Your task to perform on an android device: Do I have any events tomorrow? Image 0: 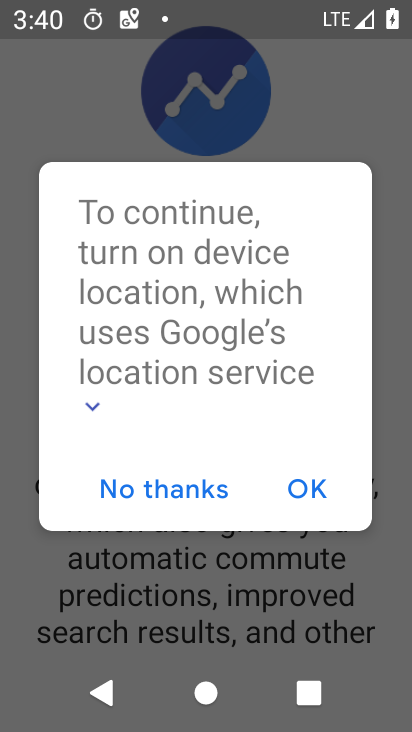
Step 0: press home button
Your task to perform on an android device: Do I have any events tomorrow? Image 1: 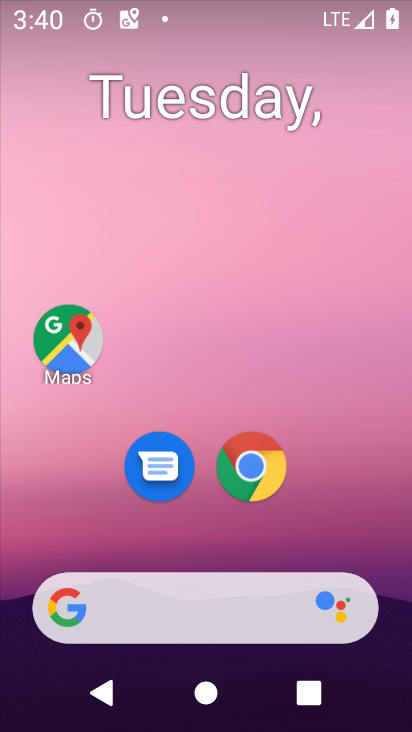
Step 1: drag from (384, 535) to (357, 146)
Your task to perform on an android device: Do I have any events tomorrow? Image 2: 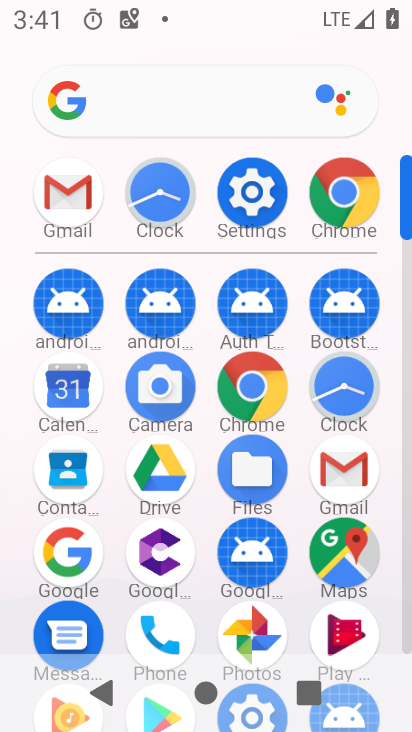
Step 2: click (89, 395)
Your task to perform on an android device: Do I have any events tomorrow? Image 3: 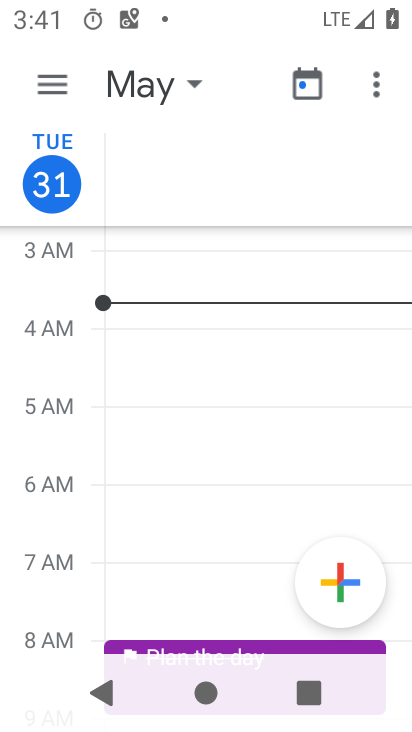
Step 3: click (62, 87)
Your task to perform on an android device: Do I have any events tomorrow? Image 4: 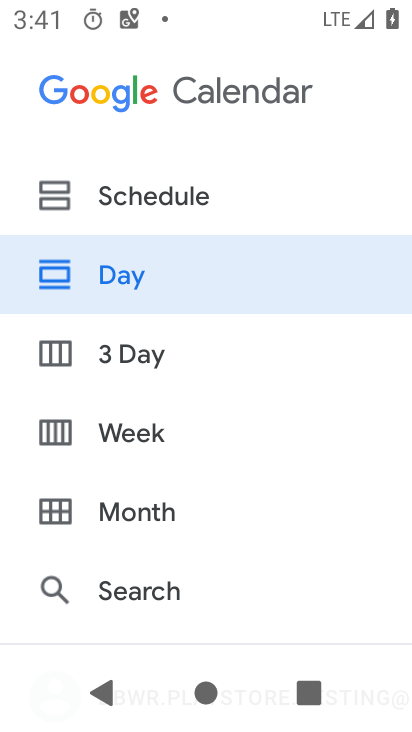
Step 4: click (195, 201)
Your task to perform on an android device: Do I have any events tomorrow? Image 5: 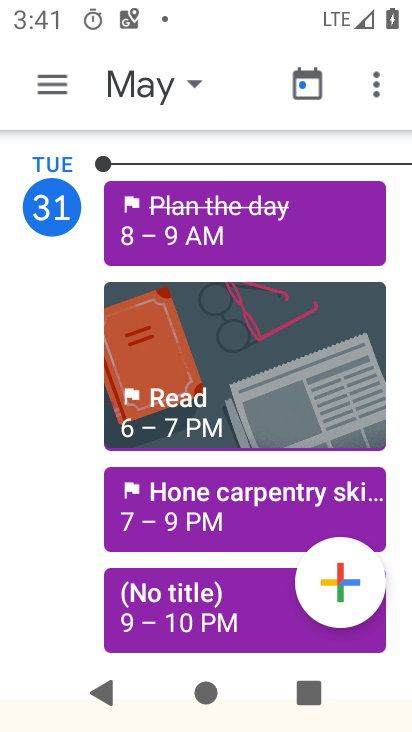
Step 5: drag from (204, 356) to (212, 233)
Your task to perform on an android device: Do I have any events tomorrow? Image 6: 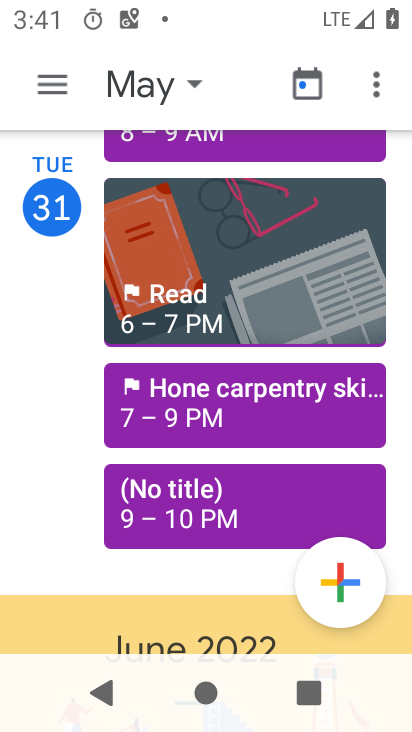
Step 6: drag from (209, 413) to (221, 174)
Your task to perform on an android device: Do I have any events tomorrow? Image 7: 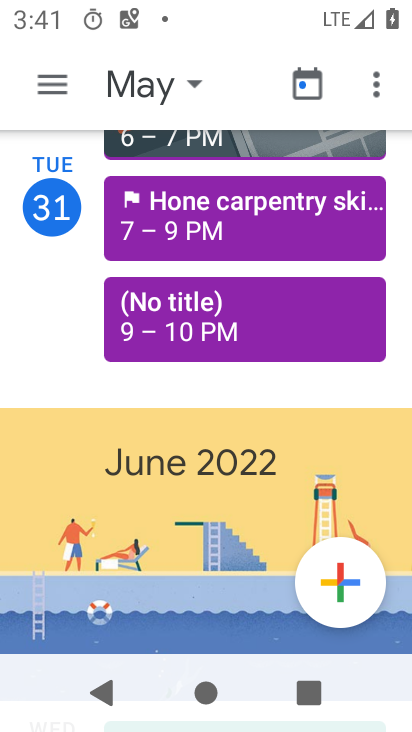
Step 7: drag from (220, 425) to (234, 216)
Your task to perform on an android device: Do I have any events tomorrow? Image 8: 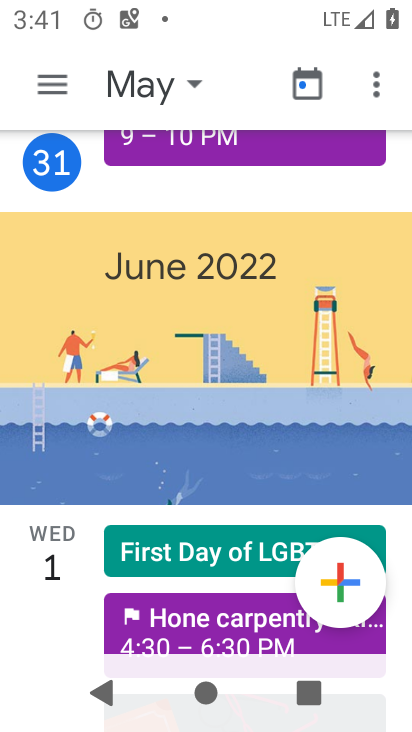
Step 8: drag from (217, 491) to (240, 199)
Your task to perform on an android device: Do I have any events tomorrow? Image 9: 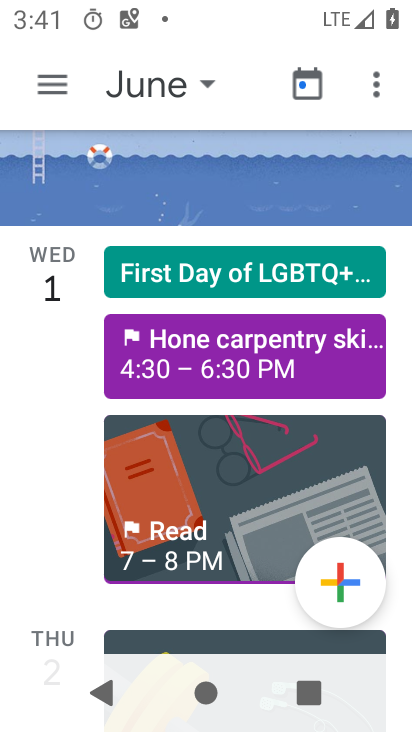
Step 9: click (239, 348)
Your task to perform on an android device: Do I have any events tomorrow? Image 10: 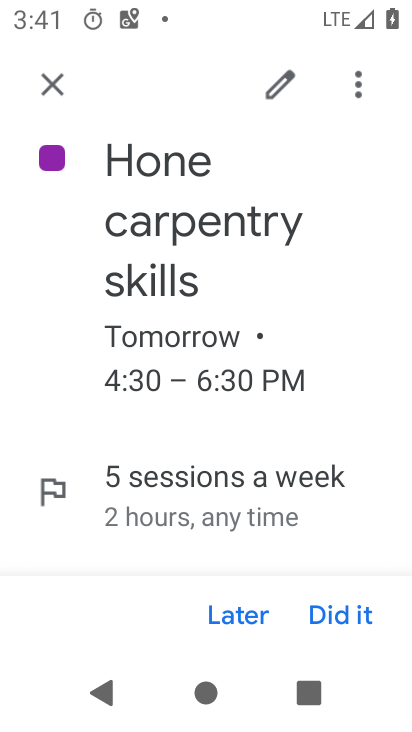
Step 10: task complete